Your task to perform on an android device: search for starred emails in the gmail app Image 0: 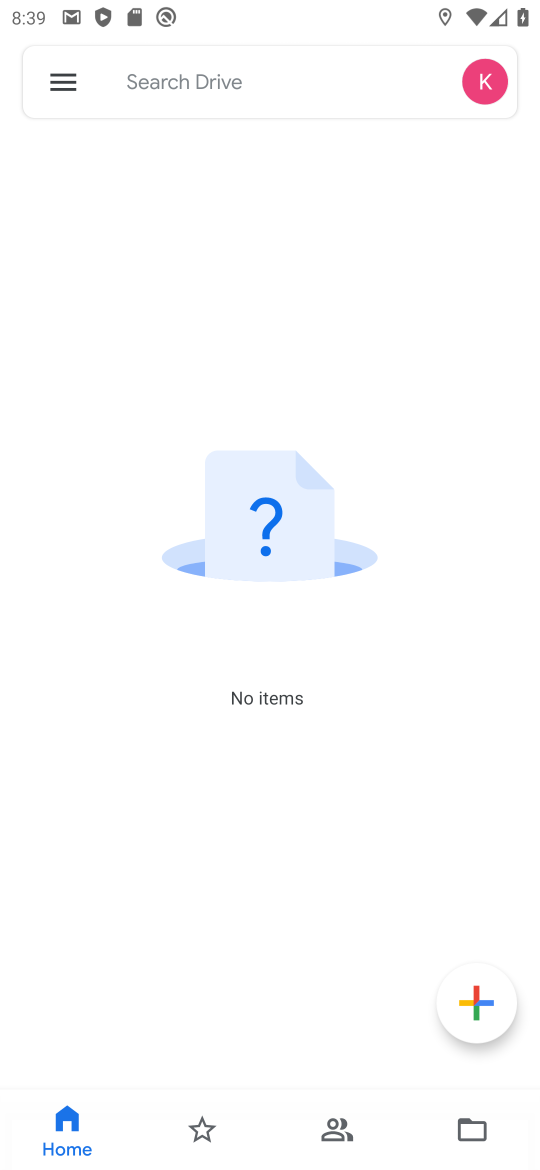
Step 0: press home button
Your task to perform on an android device: search for starred emails in the gmail app Image 1: 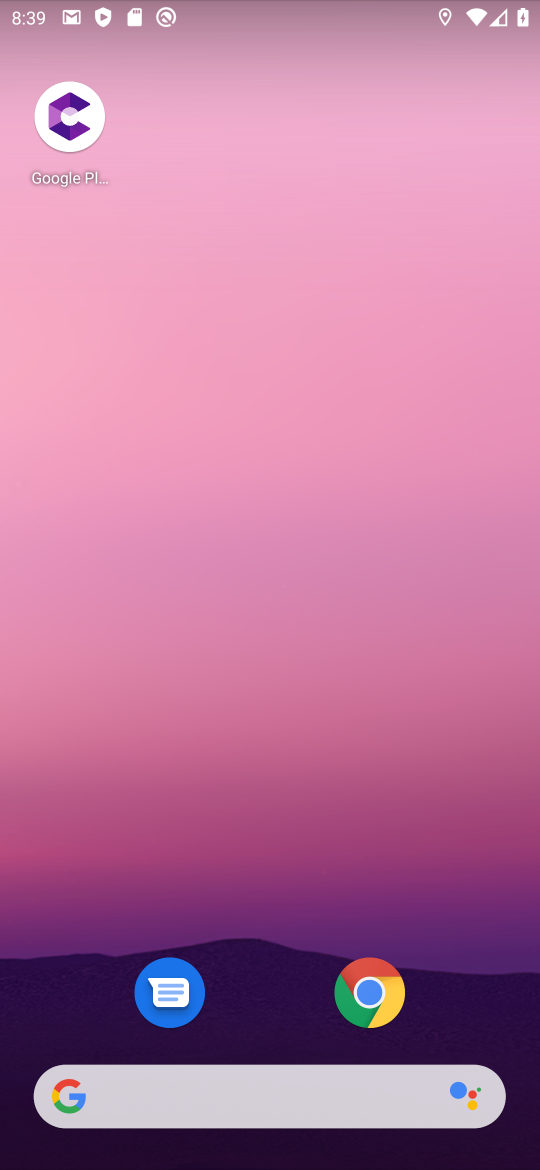
Step 1: drag from (68, 715) to (293, 74)
Your task to perform on an android device: search for starred emails in the gmail app Image 2: 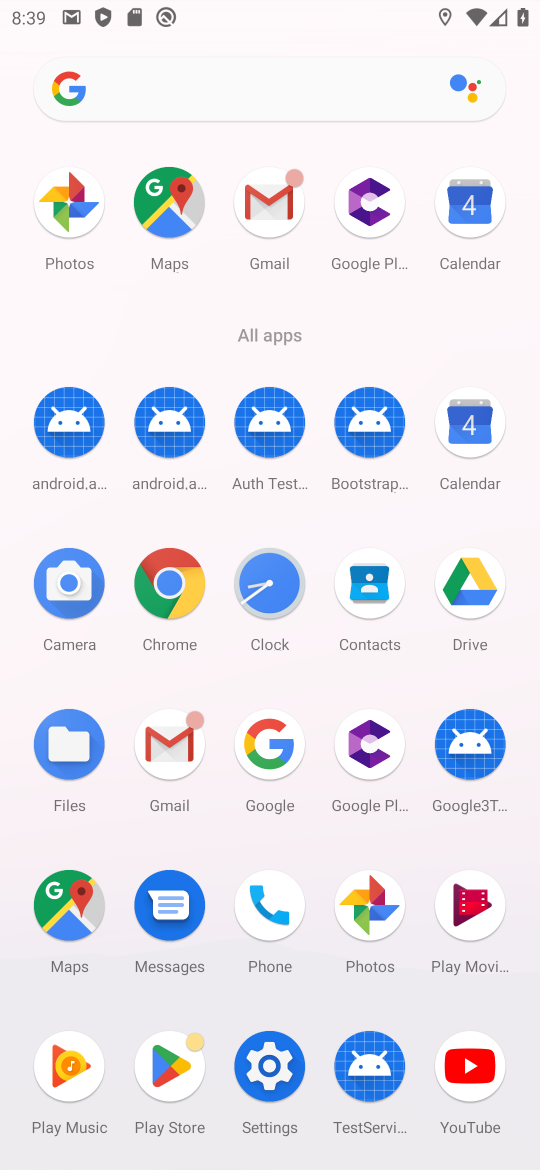
Step 2: click (135, 748)
Your task to perform on an android device: search for starred emails in the gmail app Image 3: 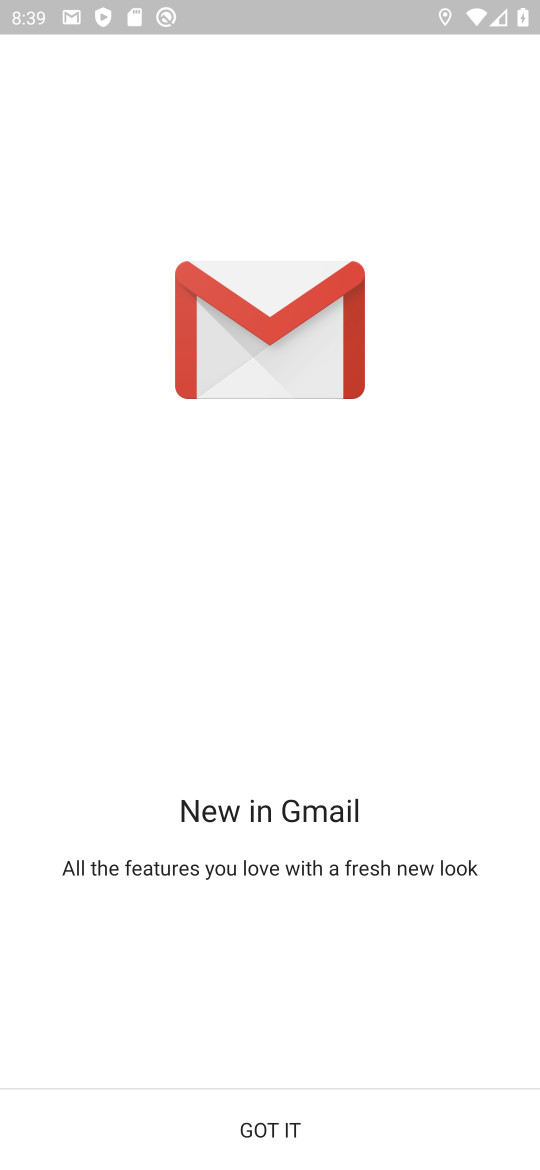
Step 3: click (240, 1102)
Your task to perform on an android device: search for starred emails in the gmail app Image 4: 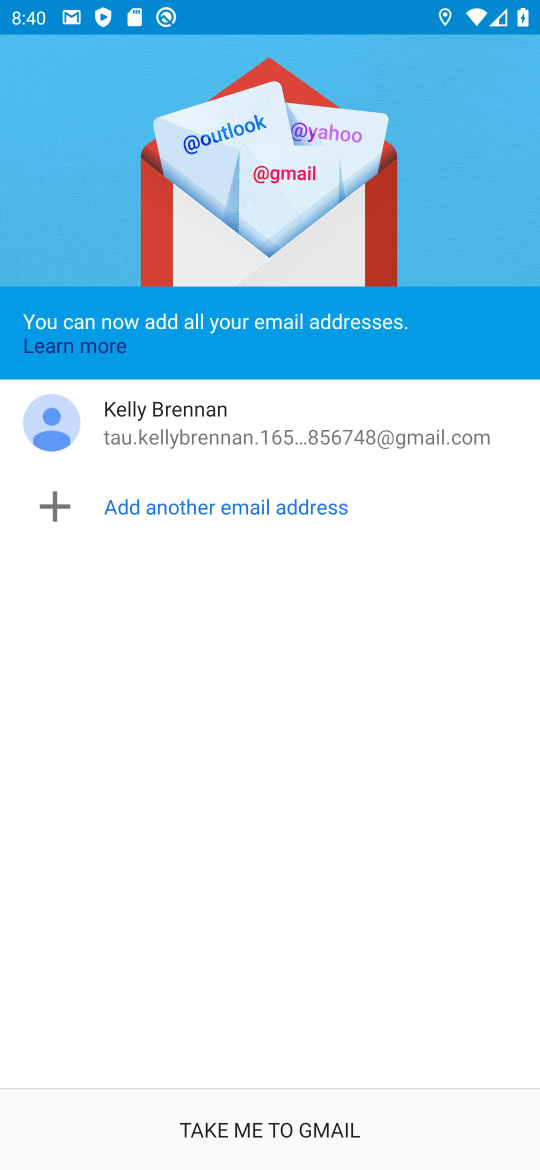
Step 4: click (231, 1127)
Your task to perform on an android device: search for starred emails in the gmail app Image 5: 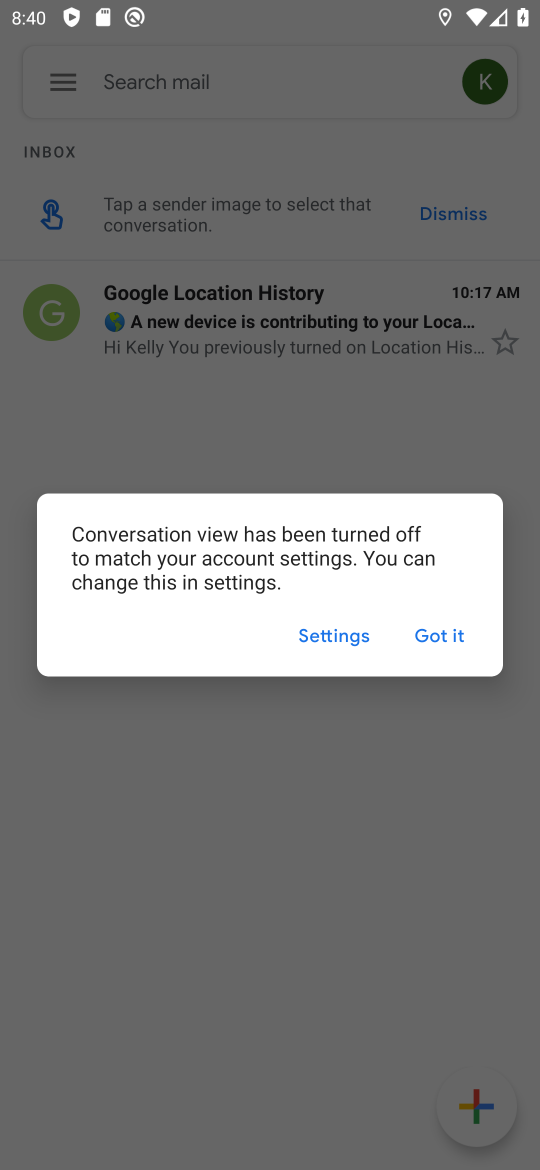
Step 5: click (459, 609)
Your task to perform on an android device: search for starred emails in the gmail app Image 6: 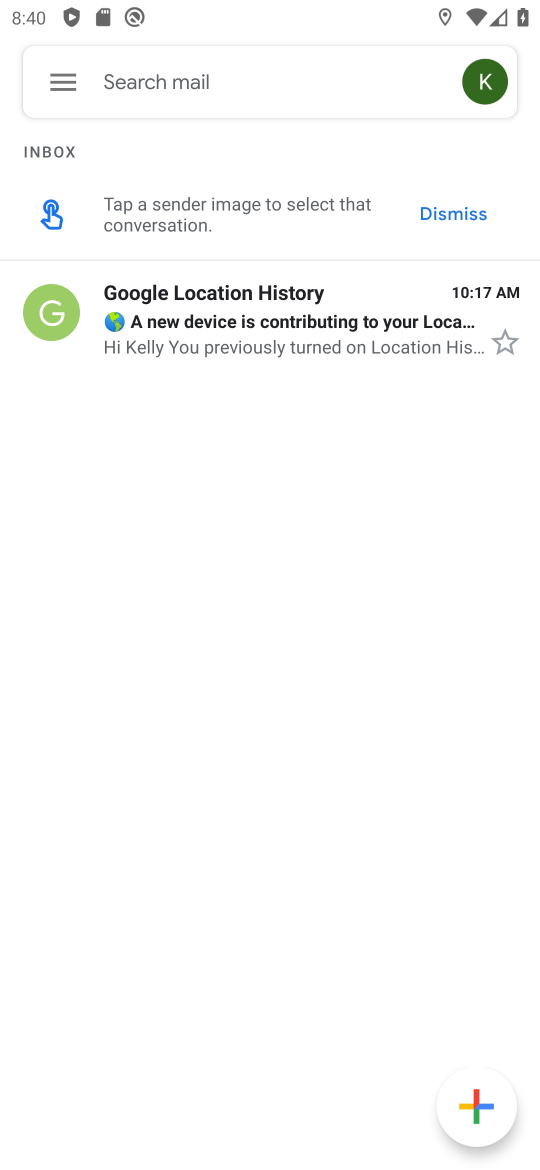
Step 6: click (68, 85)
Your task to perform on an android device: search for starred emails in the gmail app Image 7: 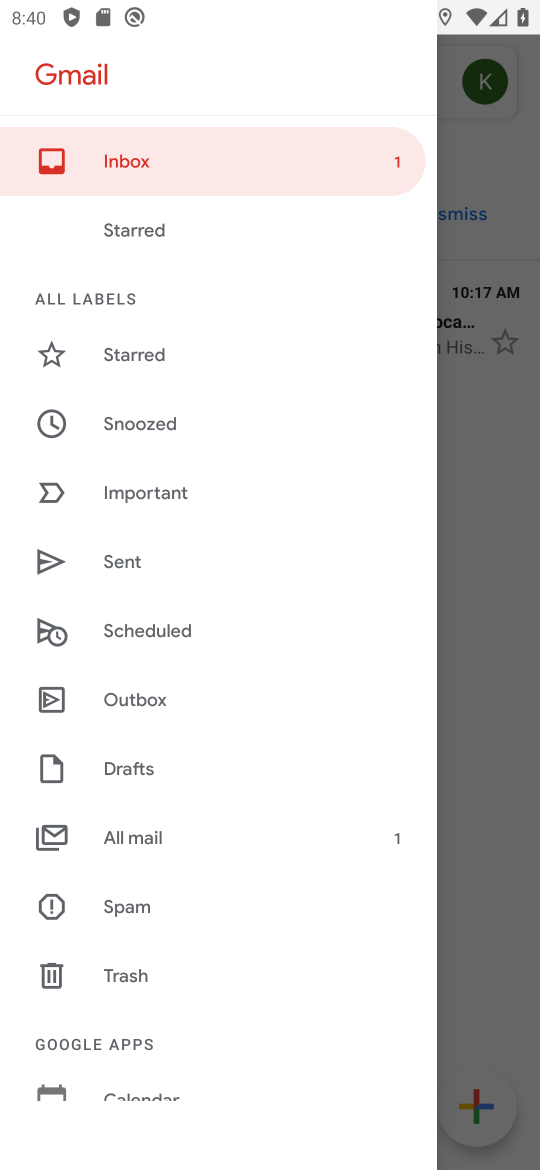
Step 7: click (206, 350)
Your task to perform on an android device: search for starred emails in the gmail app Image 8: 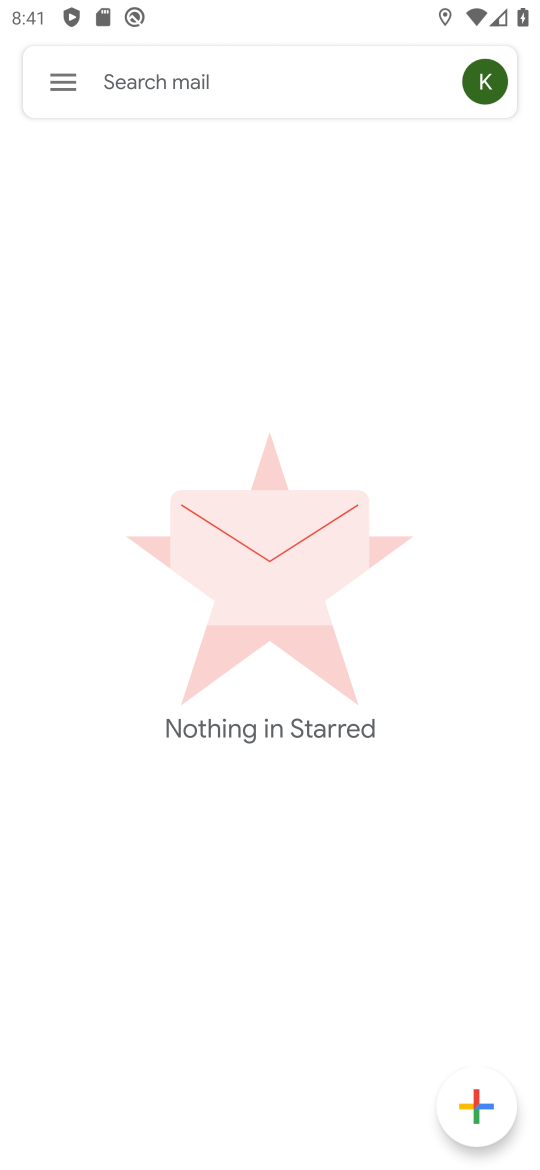
Step 8: task complete